Your task to perform on an android device: toggle translation in the chrome app Image 0: 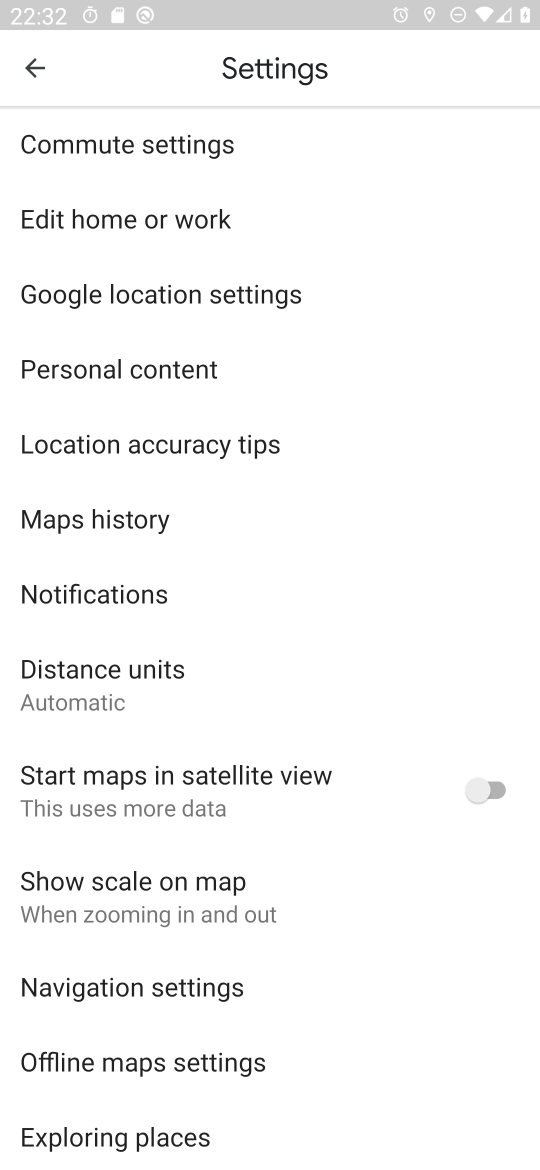
Step 0: press home button
Your task to perform on an android device: toggle translation in the chrome app Image 1: 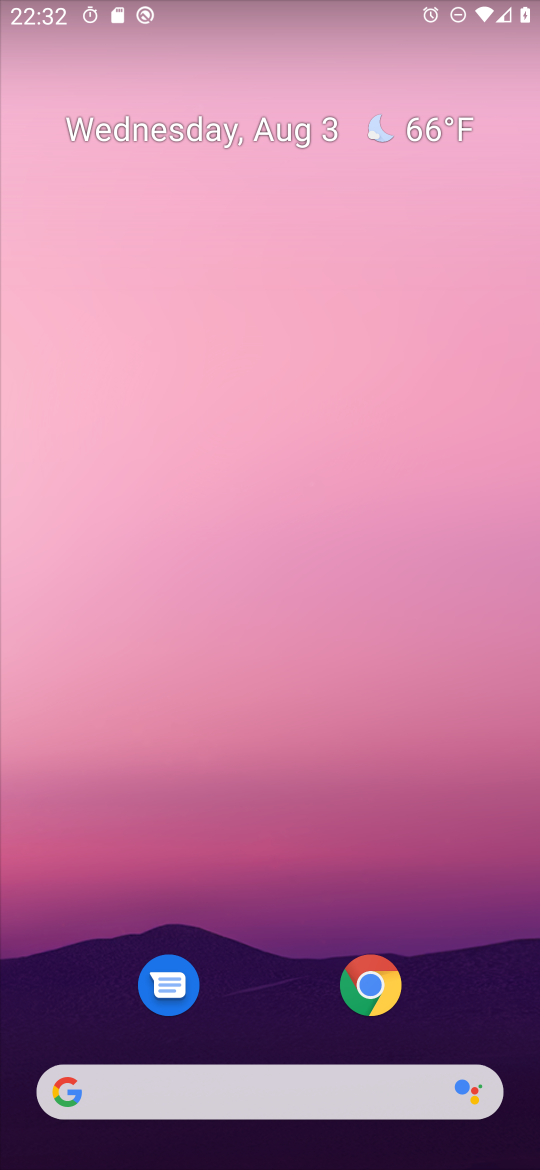
Step 1: click (344, 965)
Your task to perform on an android device: toggle translation in the chrome app Image 2: 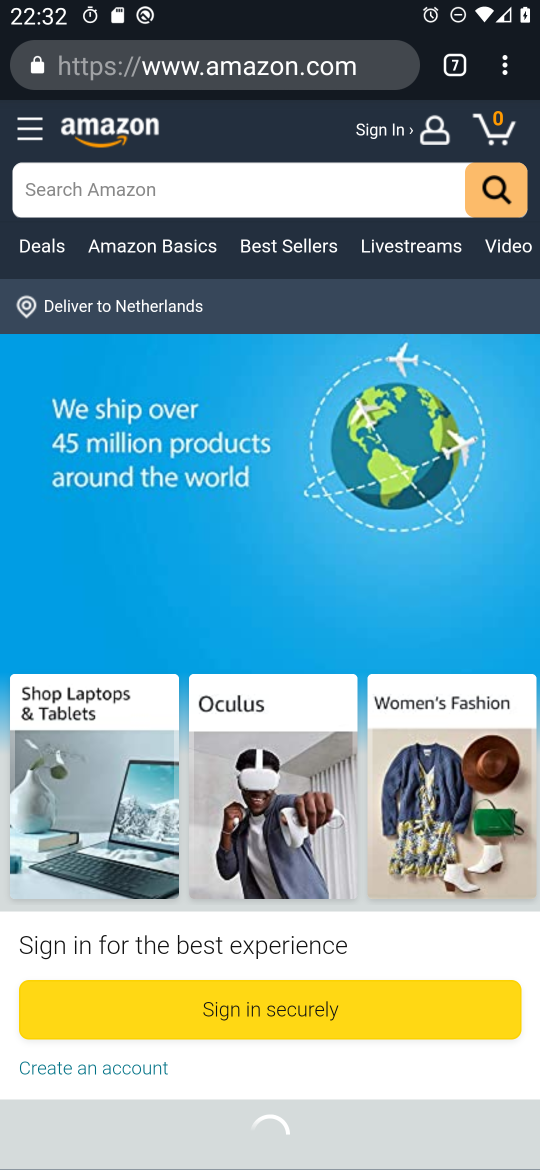
Step 2: click (496, 70)
Your task to perform on an android device: toggle translation in the chrome app Image 3: 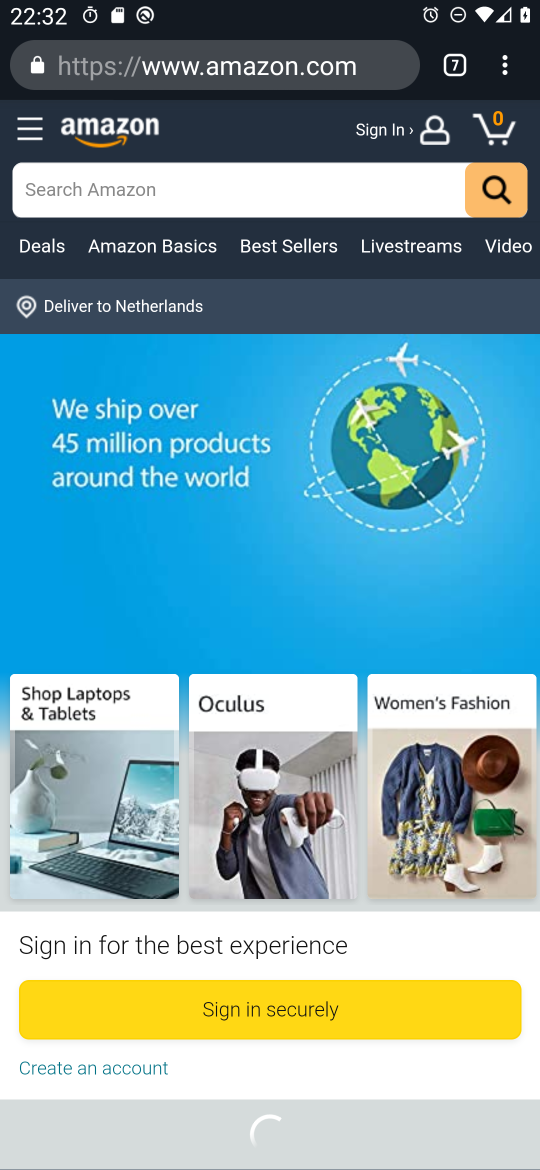
Step 3: click (505, 62)
Your task to perform on an android device: toggle translation in the chrome app Image 4: 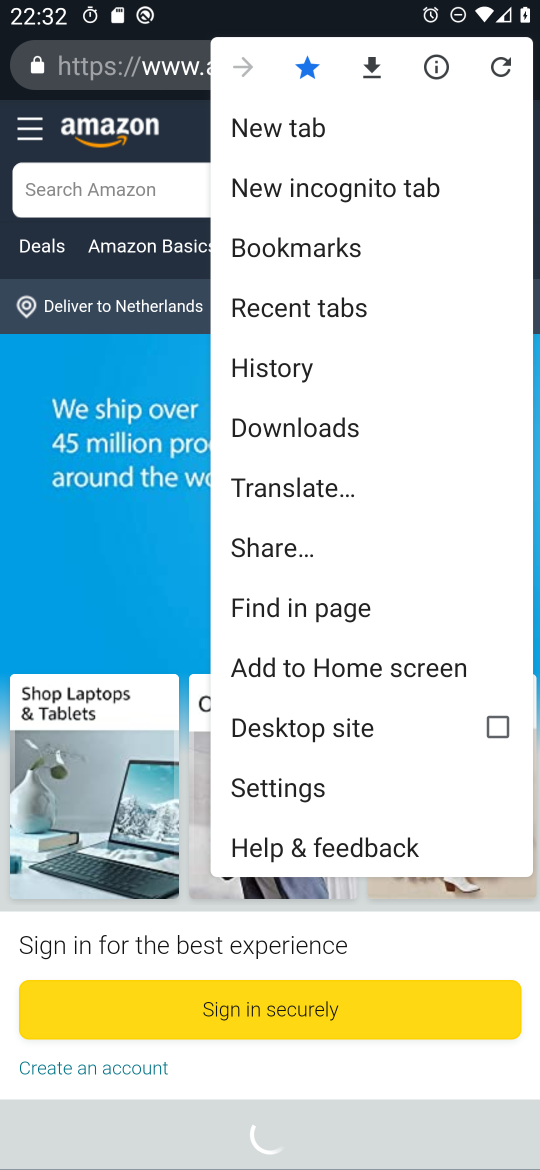
Step 4: click (253, 783)
Your task to perform on an android device: toggle translation in the chrome app Image 5: 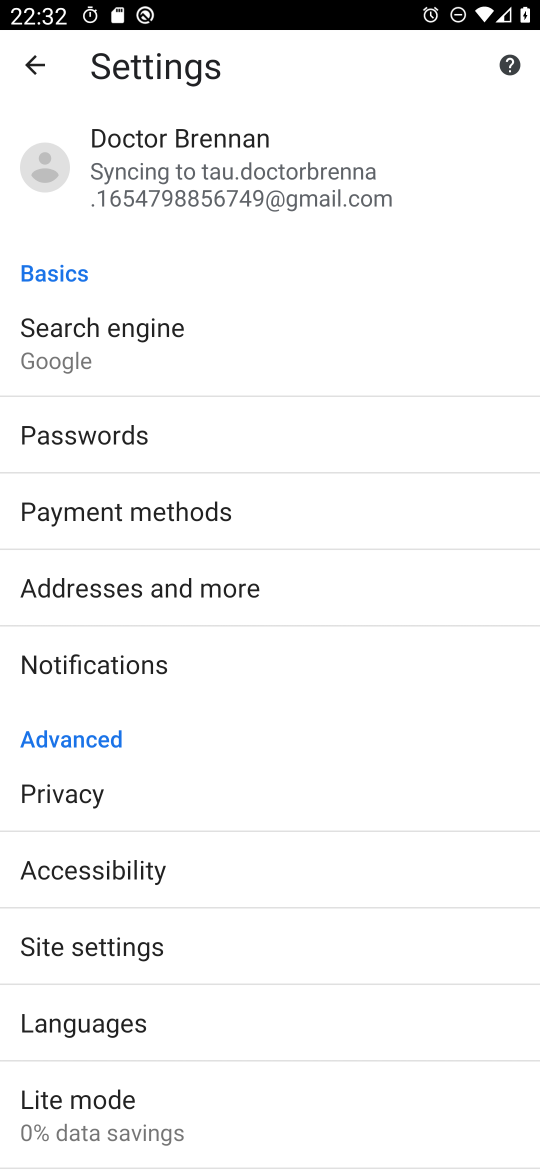
Step 5: click (127, 1009)
Your task to perform on an android device: toggle translation in the chrome app Image 6: 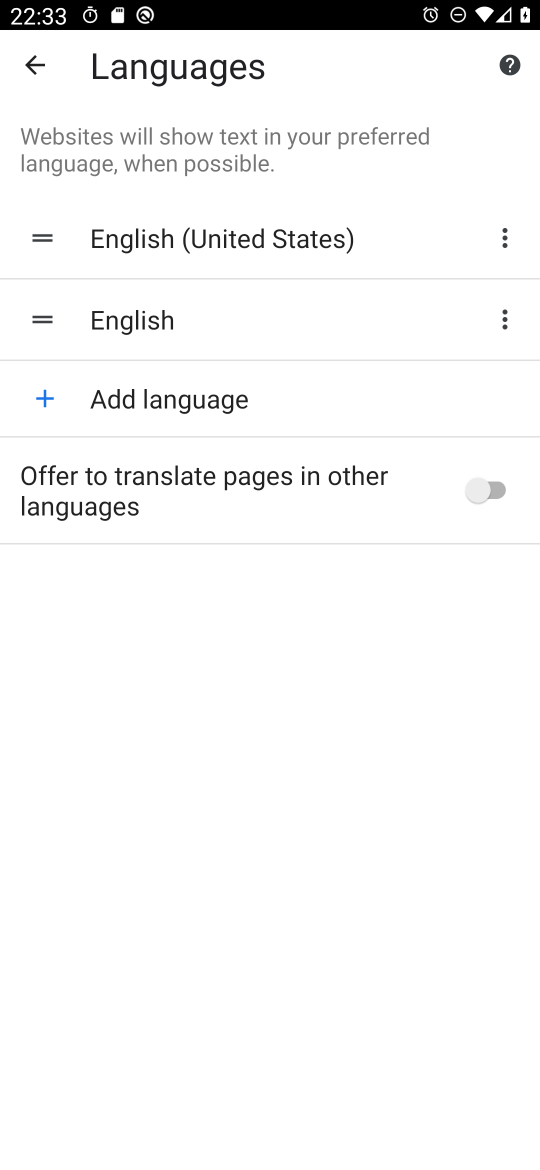
Step 6: click (502, 502)
Your task to perform on an android device: toggle translation in the chrome app Image 7: 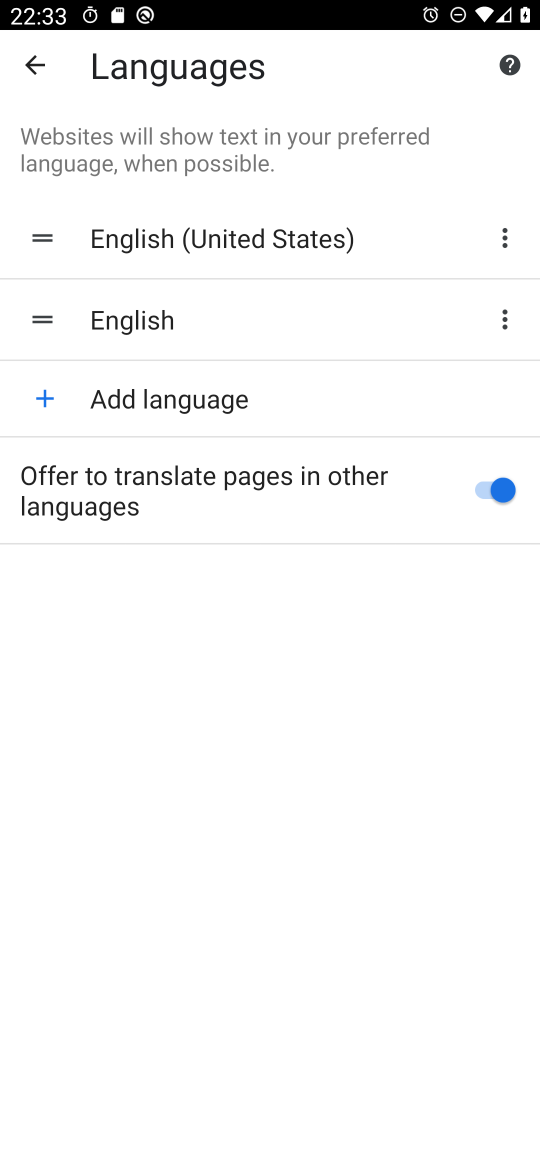
Step 7: task complete